Your task to perform on an android device: change keyboard looks Image 0: 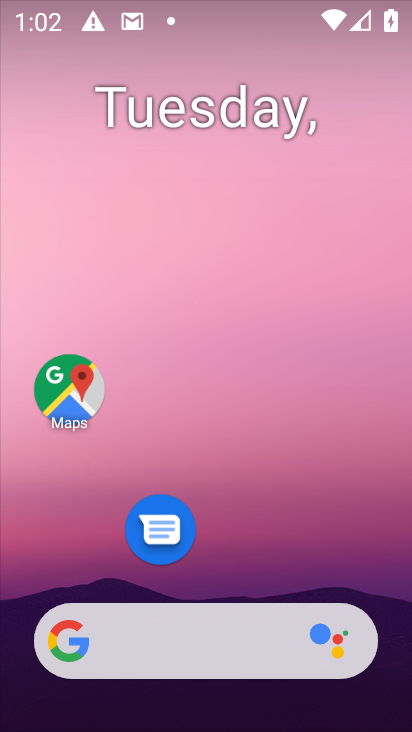
Step 0: drag from (274, 588) to (289, 23)
Your task to perform on an android device: change keyboard looks Image 1: 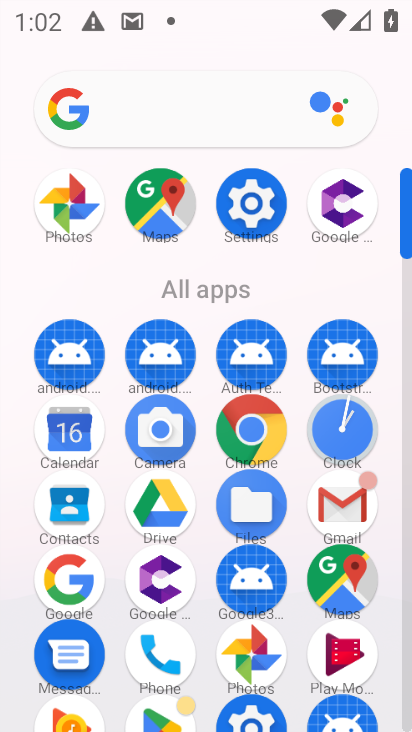
Step 1: click (256, 224)
Your task to perform on an android device: change keyboard looks Image 2: 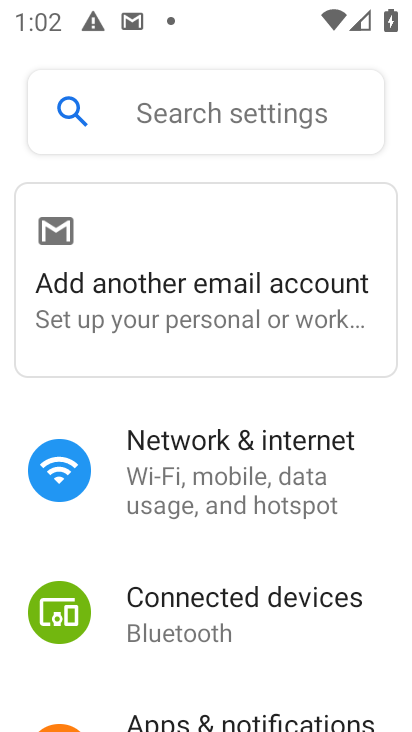
Step 2: task complete